Your task to perform on an android device: change your default location settings in chrome Image 0: 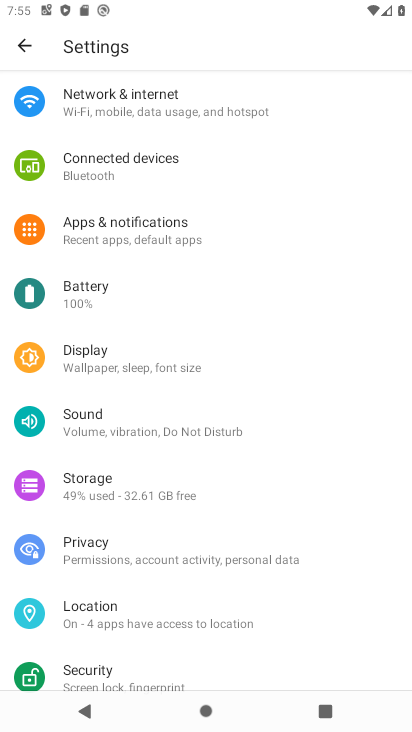
Step 0: press back button
Your task to perform on an android device: change your default location settings in chrome Image 1: 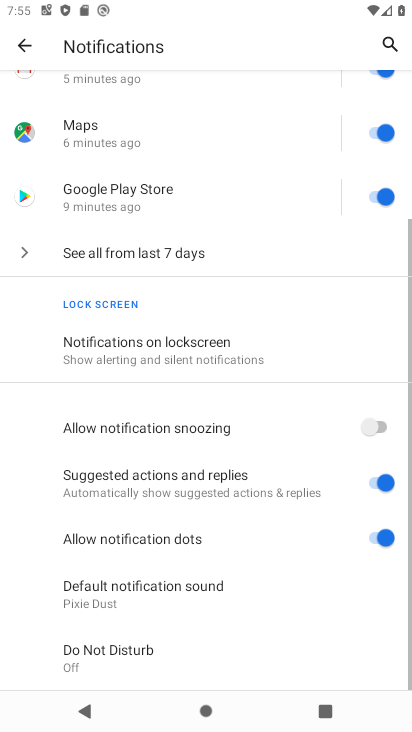
Step 1: press back button
Your task to perform on an android device: change your default location settings in chrome Image 2: 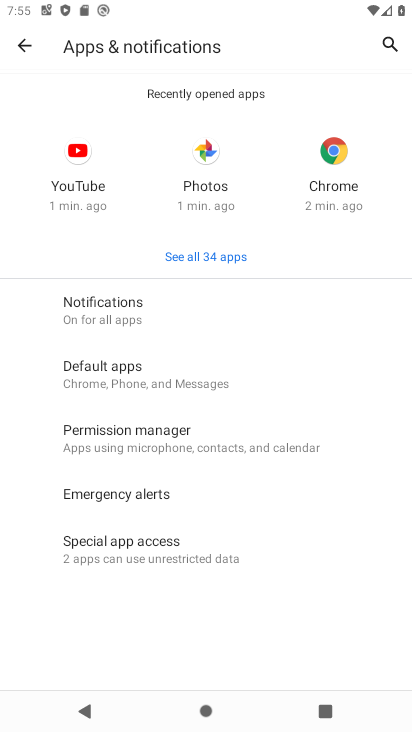
Step 2: press home button
Your task to perform on an android device: change your default location settings in chrome Image 3: 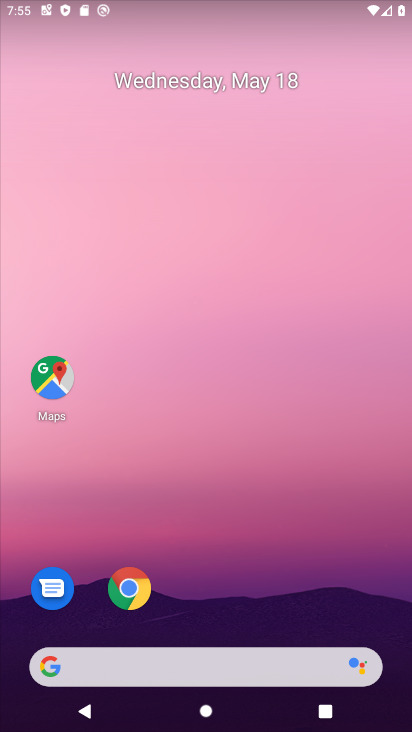
Step 3: drag from (282, 530) to (270, 23)
Your task to perform on an android device: change your default location settings in chrome Image 4: 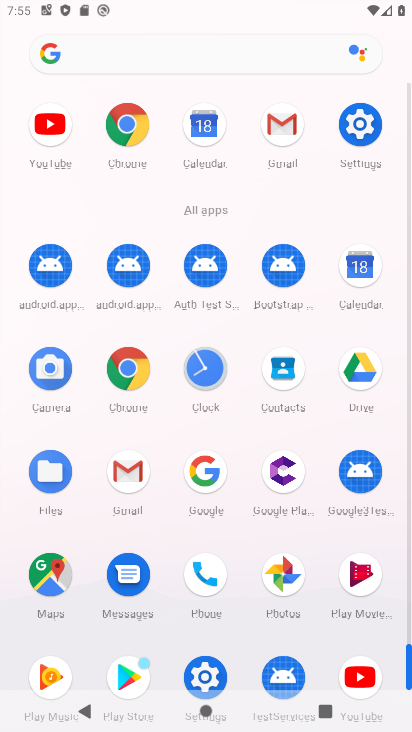
Step 4: click (127, 123)
Your task to perform on an android device: change your default location settings in chrome Image 5: 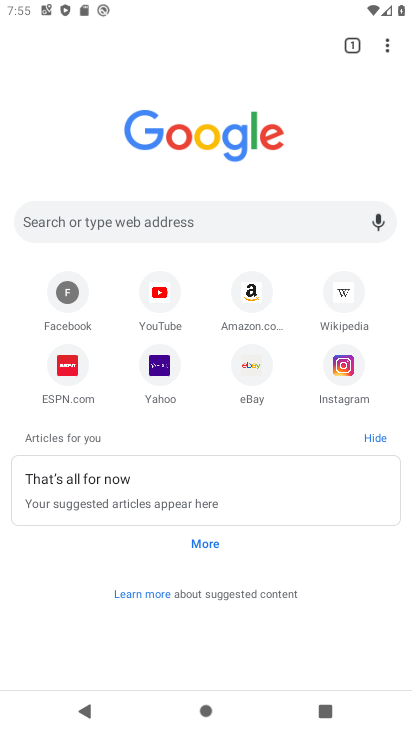
Step 5: drag from (388, 38) to (257, 380)
Your task to perform on an android device: change your default location settings in chrome Image 6: 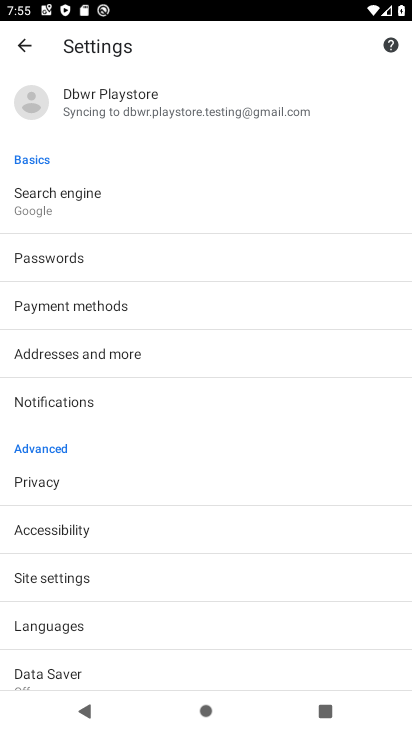
Step 6: click (94, 580)
Your task to perform on an android device: change your default location settings in chrome Image 7: 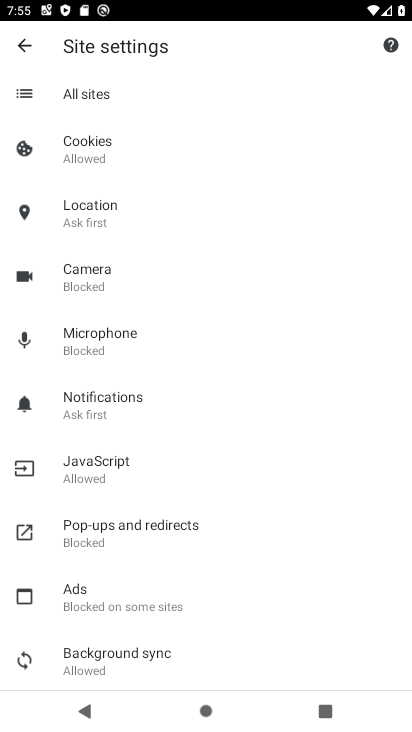
Step 7: click (177, 230)
Your task to perform on an android device: change your default location settings in chrome Image 8: 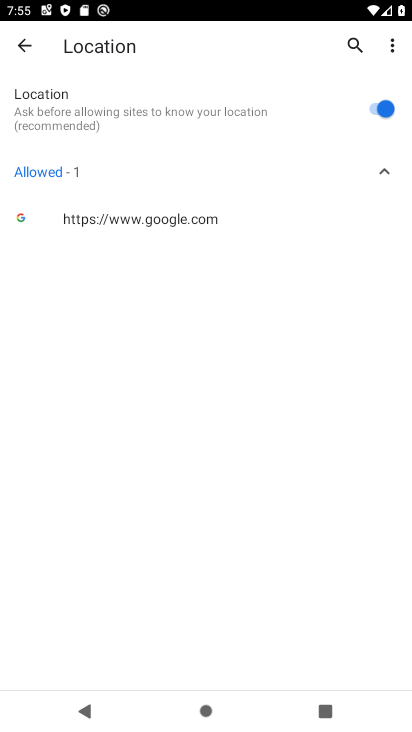
Step 8: click (367, 112)
Your task to perform on an android device: change your default location settings in chrome Image 9: 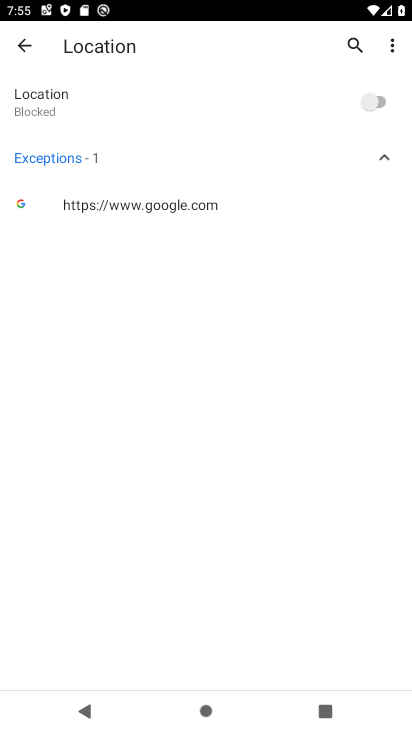
Step 9: task complete